Your task to perform on an android device: toggle sleep mode Image 0: 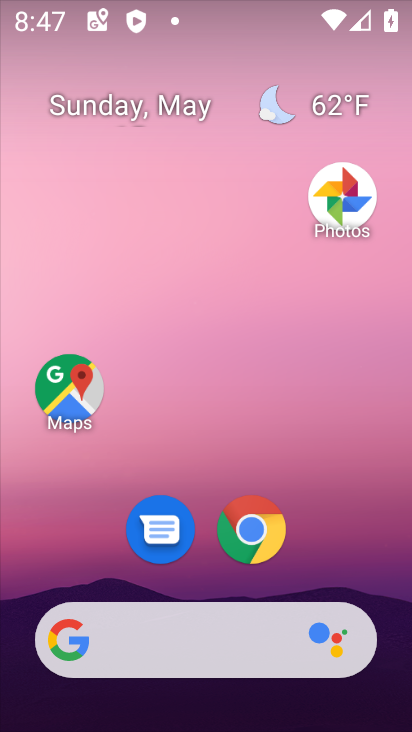
Step 0: drag from (378, 506) to (324, 90)
Your task to perform on an android device: toggle sleep mode Image 1: 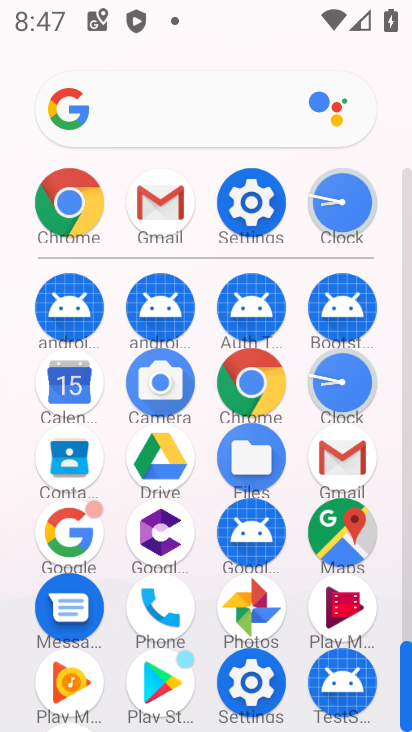
Step 1: click (281, 192)
Your task to perform on an android device: toggle sleep mode Image 2: 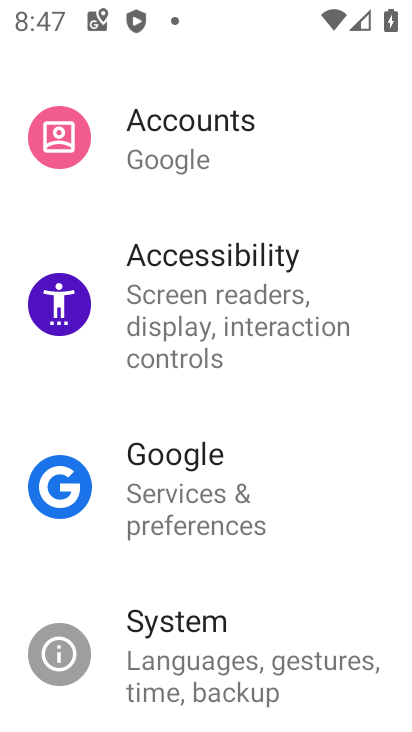
Step 2: drag from (182, 158) to (195, 534)
Your task to perform on an android device: toggle sleep mode Image 3: 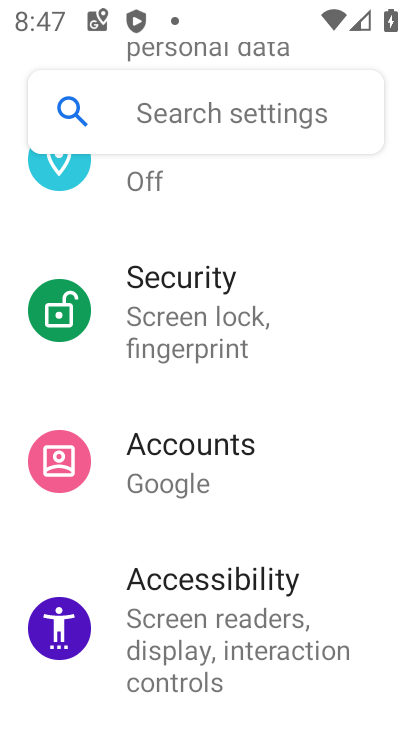
Step 3: click (152, 105)
Your task to perform on an android device: toggle sleep mode Image 4: 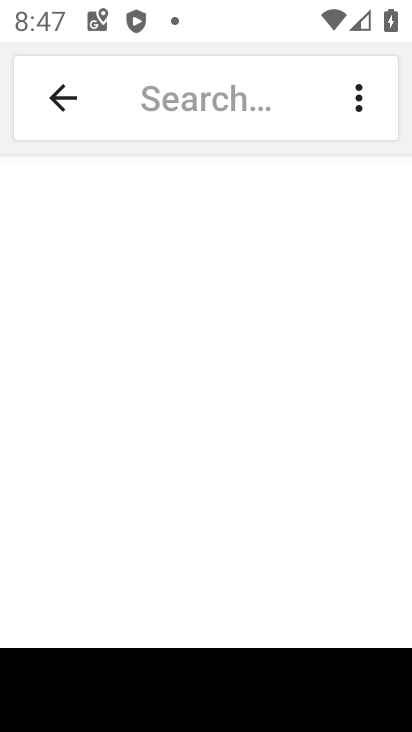
Step 4: type "sleep mode"
Your task to perform on an android device: toggle sleep mode Image 5: 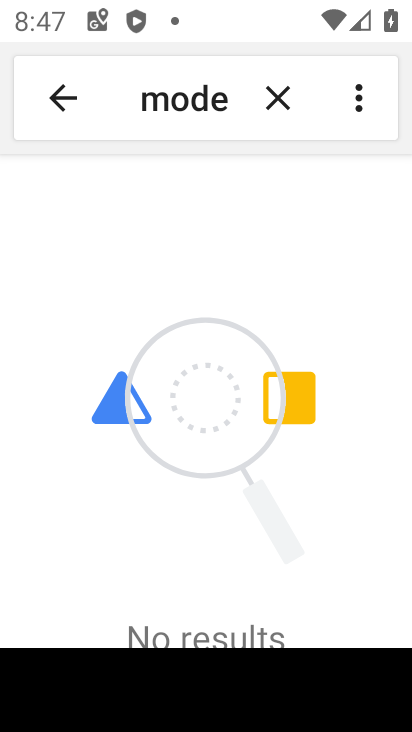
Step 5: task complete